Your task to perform on an android device: Turn off the flashlight Image 0: 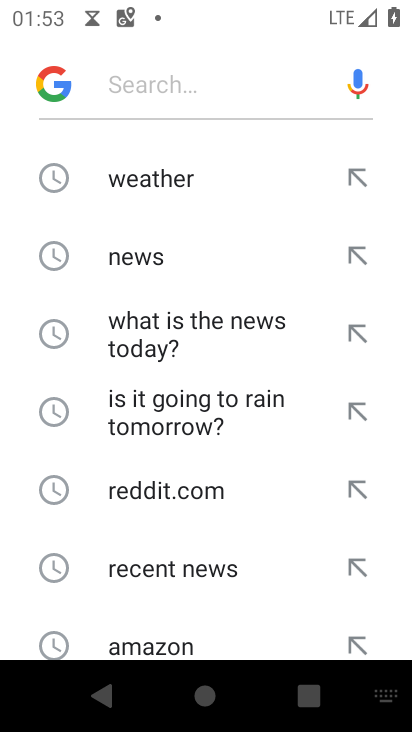
Step 0: press home button
Your task to perform on an android device: Turn off the flashlight Image 1: 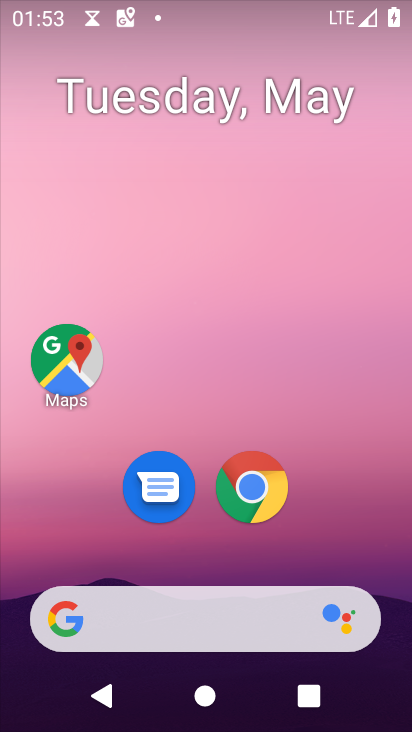
Step 1: drag from (342, 546) to (196, 12)
Your task to perform on an android device: Turn off the flashlight Image 2: 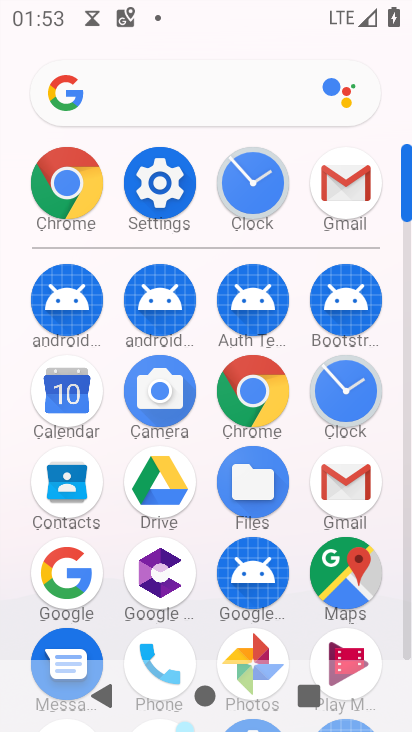
Step 2: click (129, 166)
Your task to perform on an android device: Turn off the flashlight Image 3: 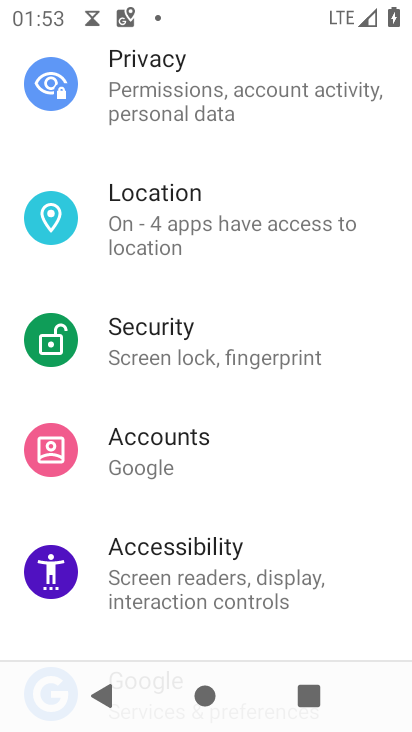
Step 3: click (146, 175)
Your task to perform on an android device: Turn off the flashlight Image 4: 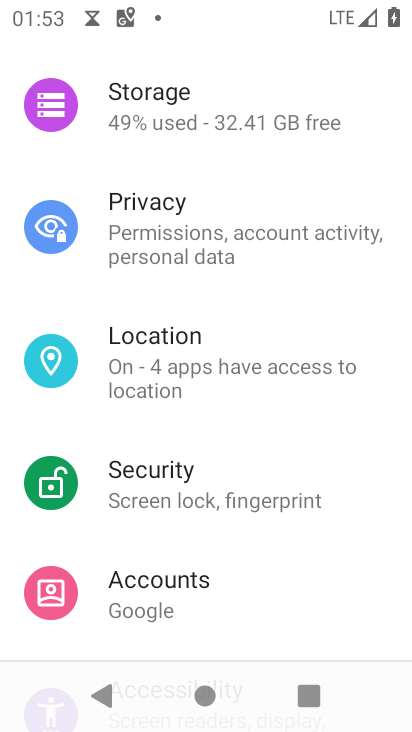
Step 4: drag from (112, 372) to (122, 114)
Your task to perform on an android device: Turn off the flashlight Image 5: 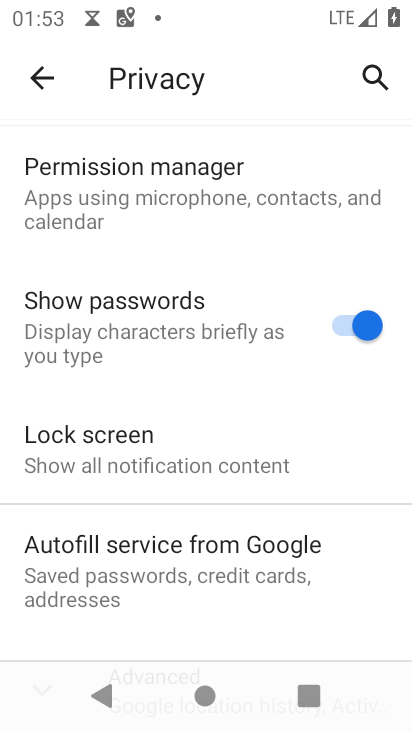
Step 5: click (101, 693)
Your task to perform on an android device: Turn off the flashlight Image 6: 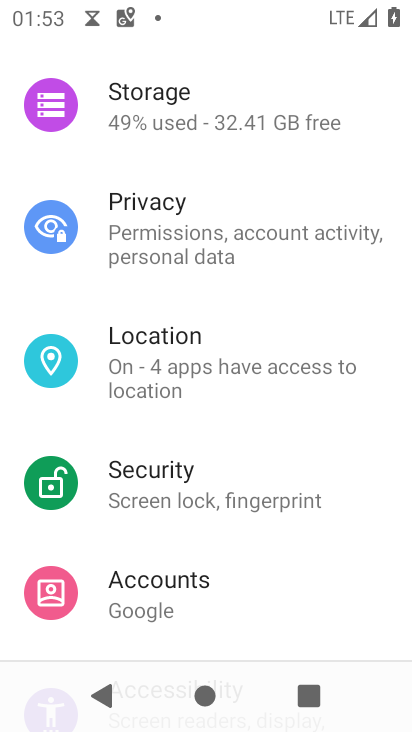
Step 6: task complete